Your task to perform on an android device: check storage Image 0: 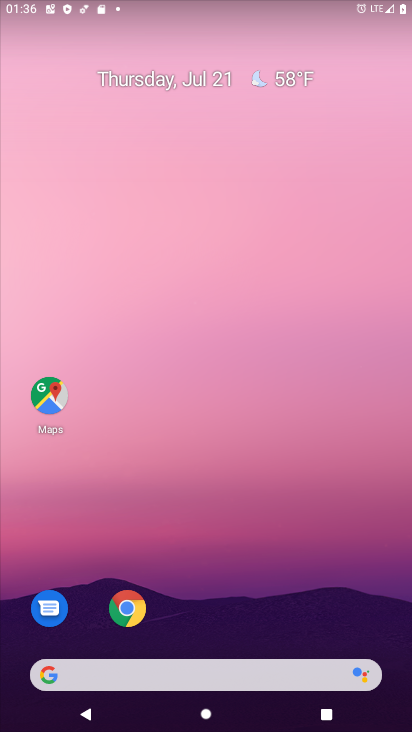
Step 0: press home button
Your task to perform on an android device: check storage Image 1: 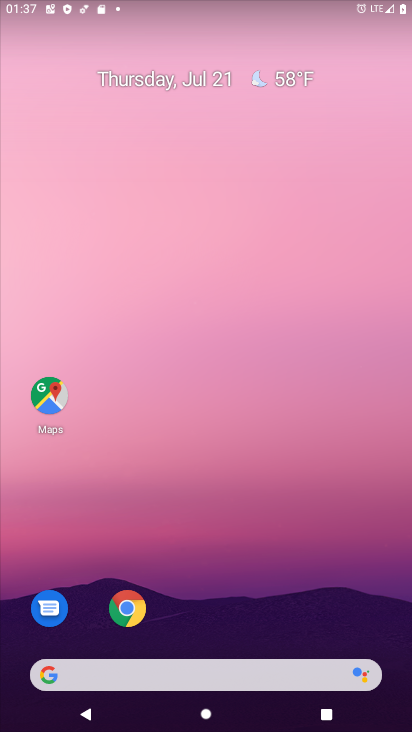
Step 1: drag from (206, 626) to (260, 102)
Your task to perform on an android device: check storage Image 2: 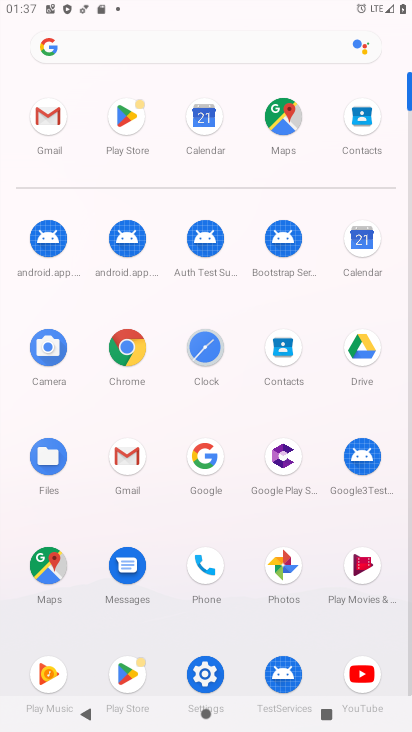
Step 2: click (206, 672)
Your task to perform on an android device: check storage Image 3: 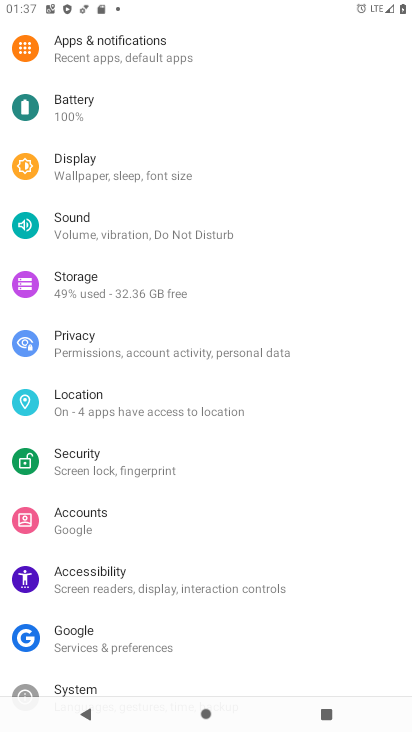
Step 3: click (106, 277)
Your task to perform on an android device: check storage Image 4: 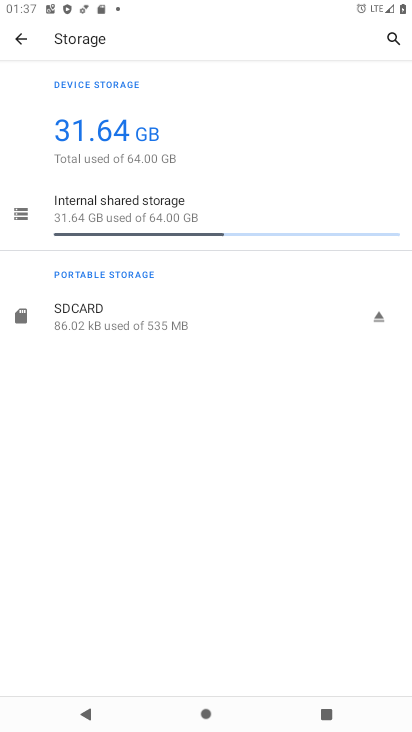
Step 4: task complete